Your task to perform on an android device: Search for usb-b on walmart.com, select the first entry, add it to the cart, then select checkout. Image 0: 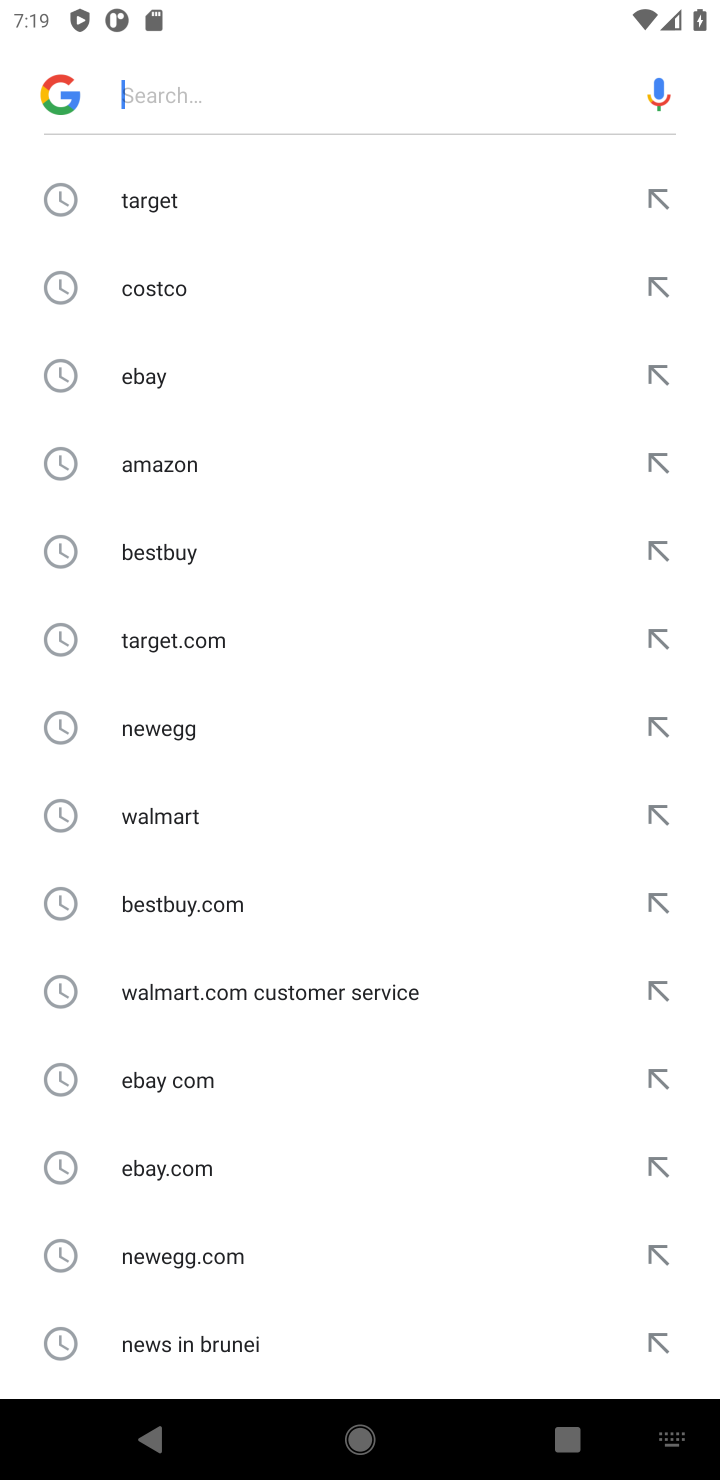
Step 0: press home button
Your task to perform on an android device: Search for usb-b on walmart.com, select the first entry, add it to the cart, then select checkout. Image 1: 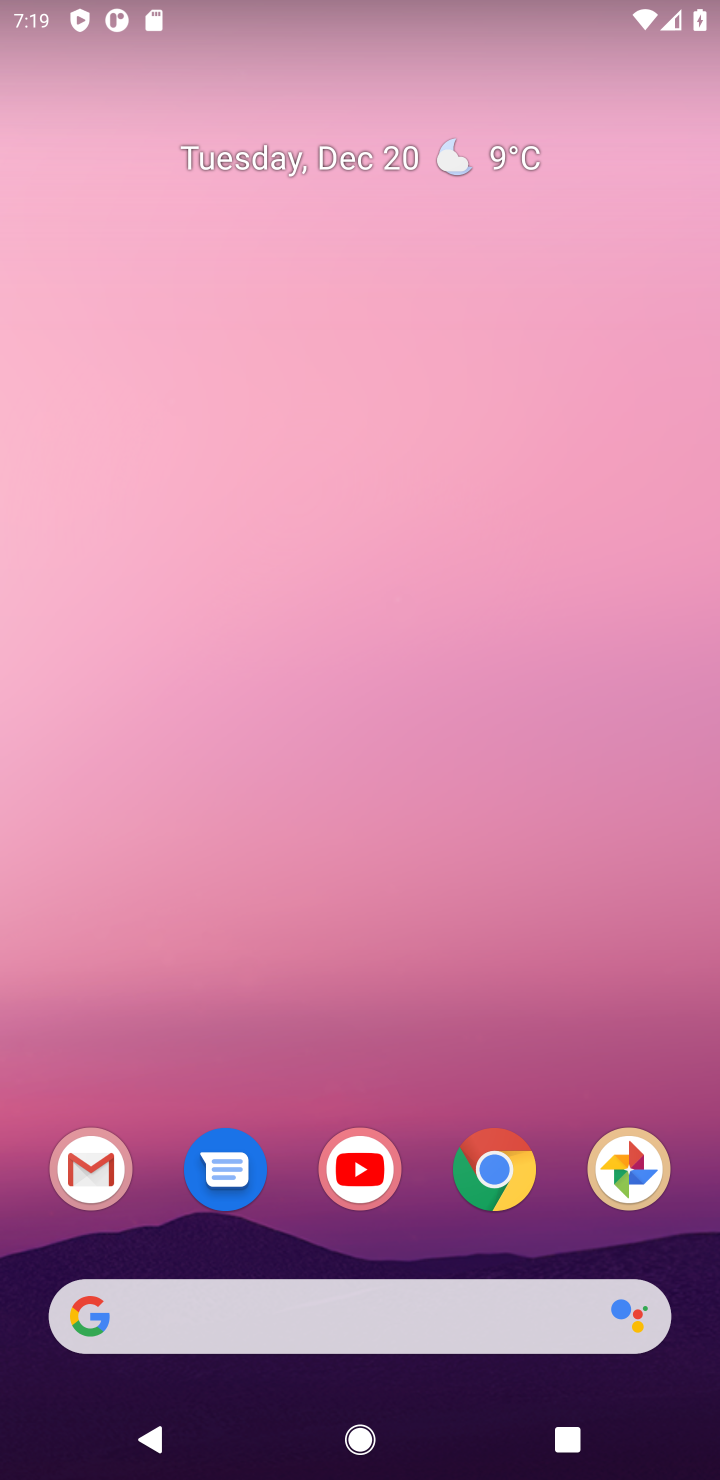
Step 1: click (396, 1293)
Your task to perform on an android device: Search for usb-b on walmart.com, select the first entry, add it to the cart, then select checkout. Image 2: 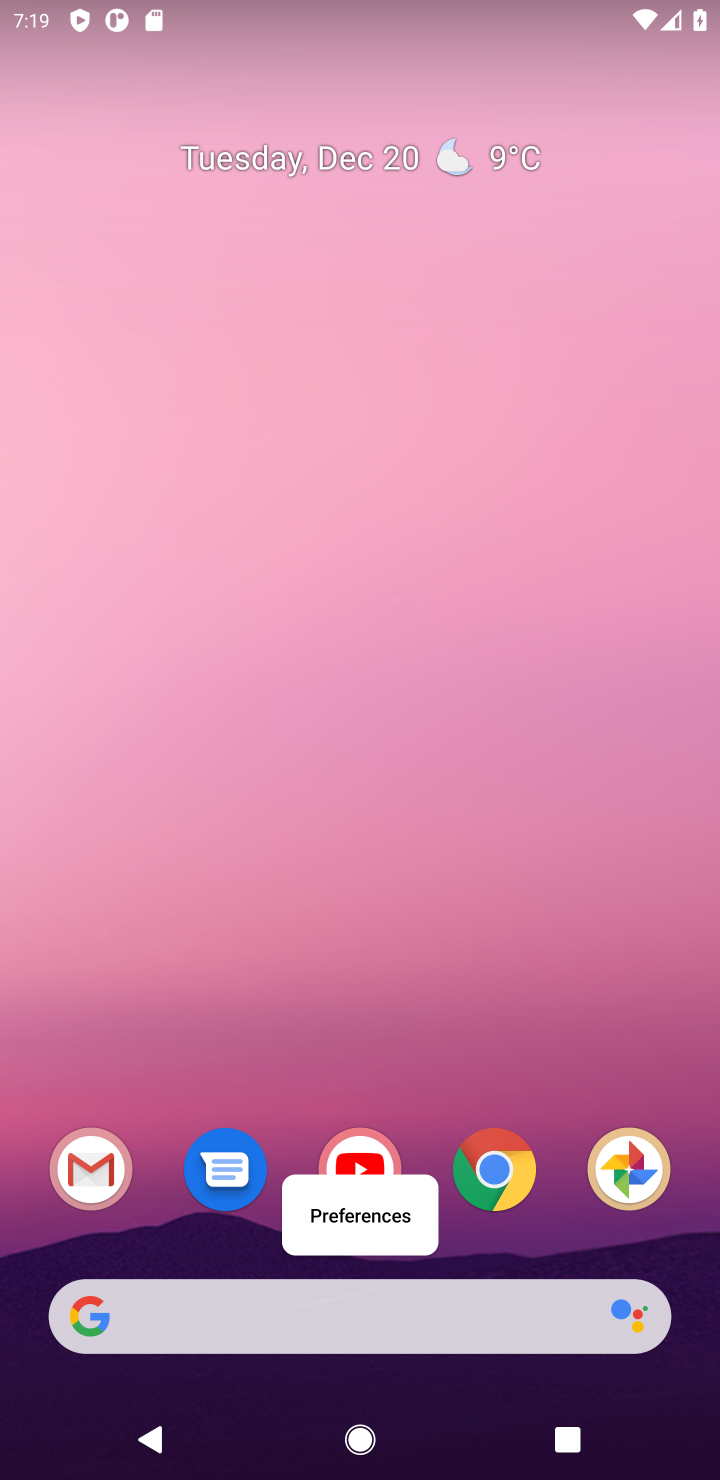
Step 2: click (396, 1293)
Your task to perform on an android device: Search for usb-b on walmart.com, select the first entry, add it to the cart, then select checkout. Image 3: 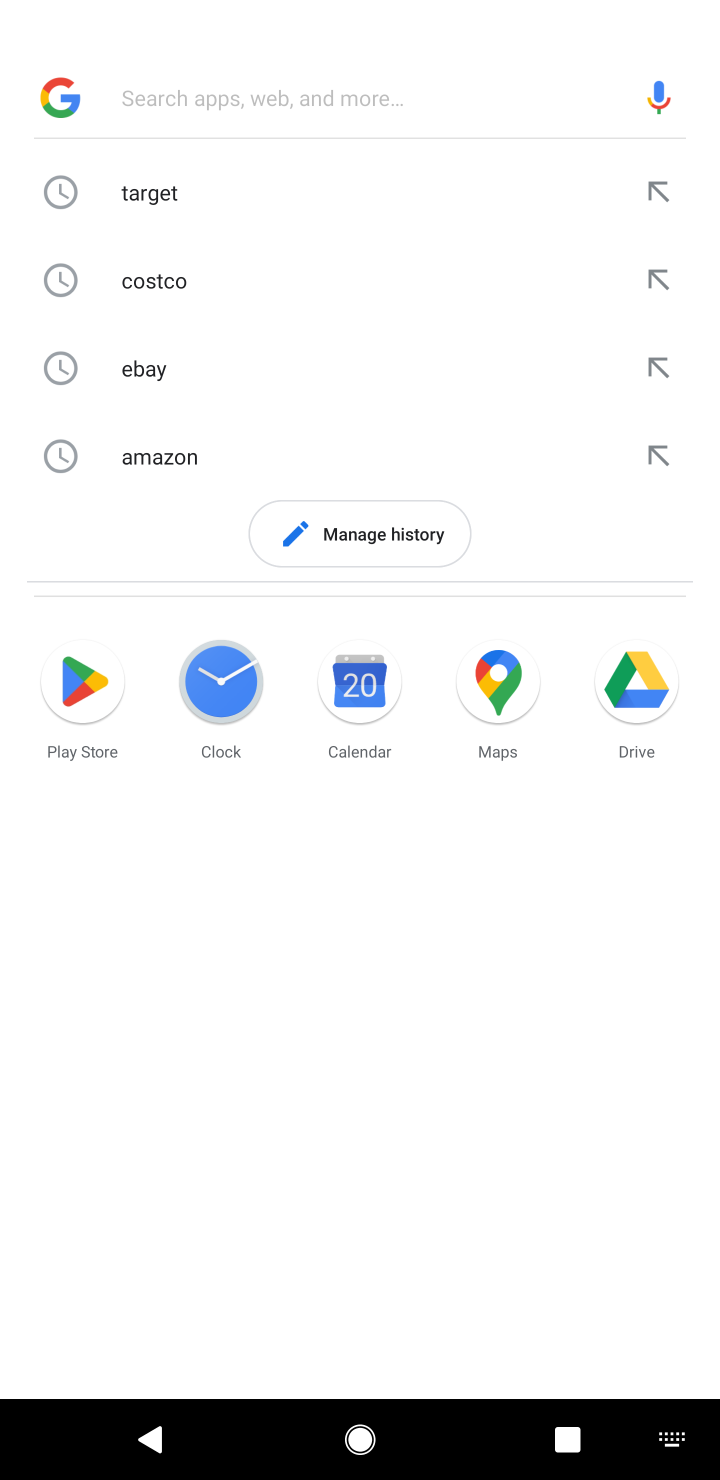
Step 3: click (220, 1300)
Your task to perform on an android device: Search for usb-b on walmart.com, select the first entry, add it to the cart, then select checkout. Image 4: 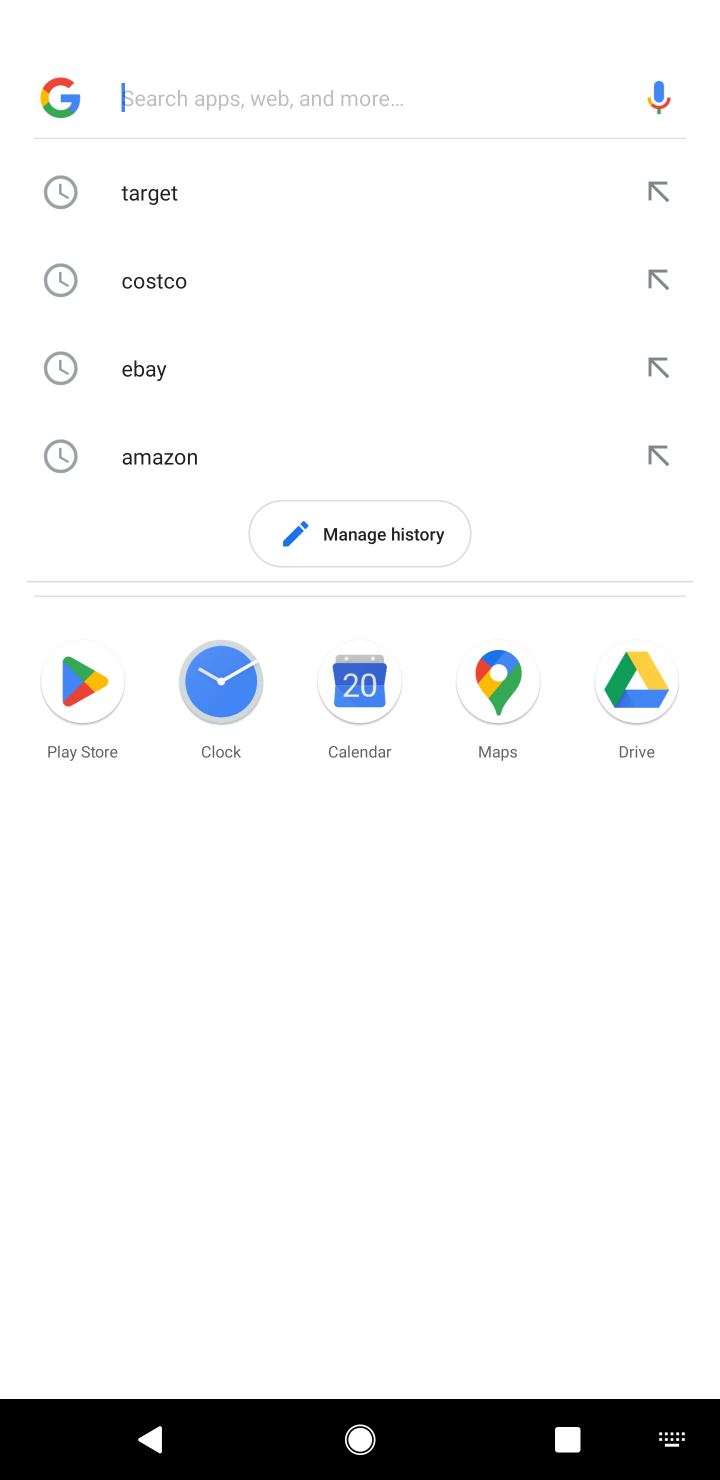
Step 4: type "walmart"
Your task to perform on an android device: Search for usb-b on walmart.com, select the first entry, add it to the cart, then select checkout. Image 5: 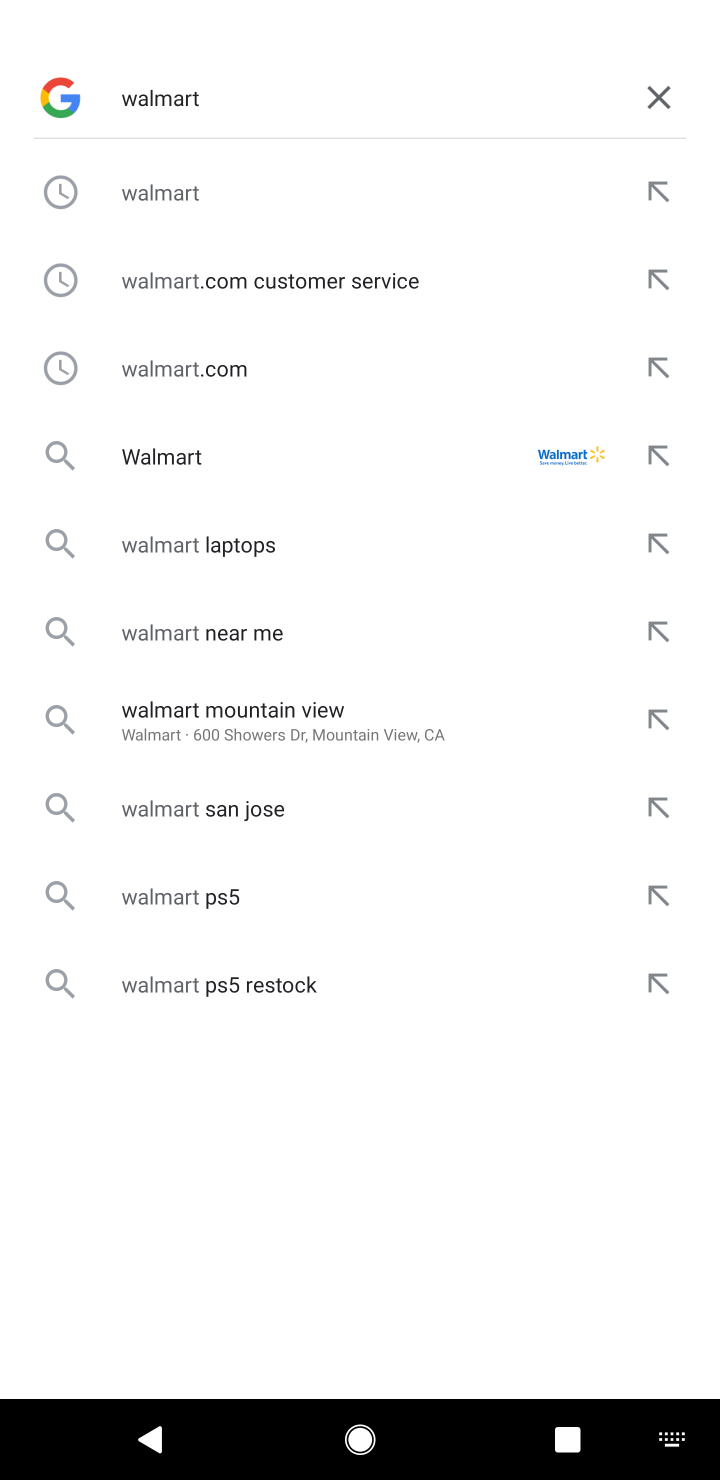
Step 5: click (245, 168)
Your task to perform on an android device: Search for usb-b on walmart.com, select the first entry, add it to the cart, then select checkout. Image 6: 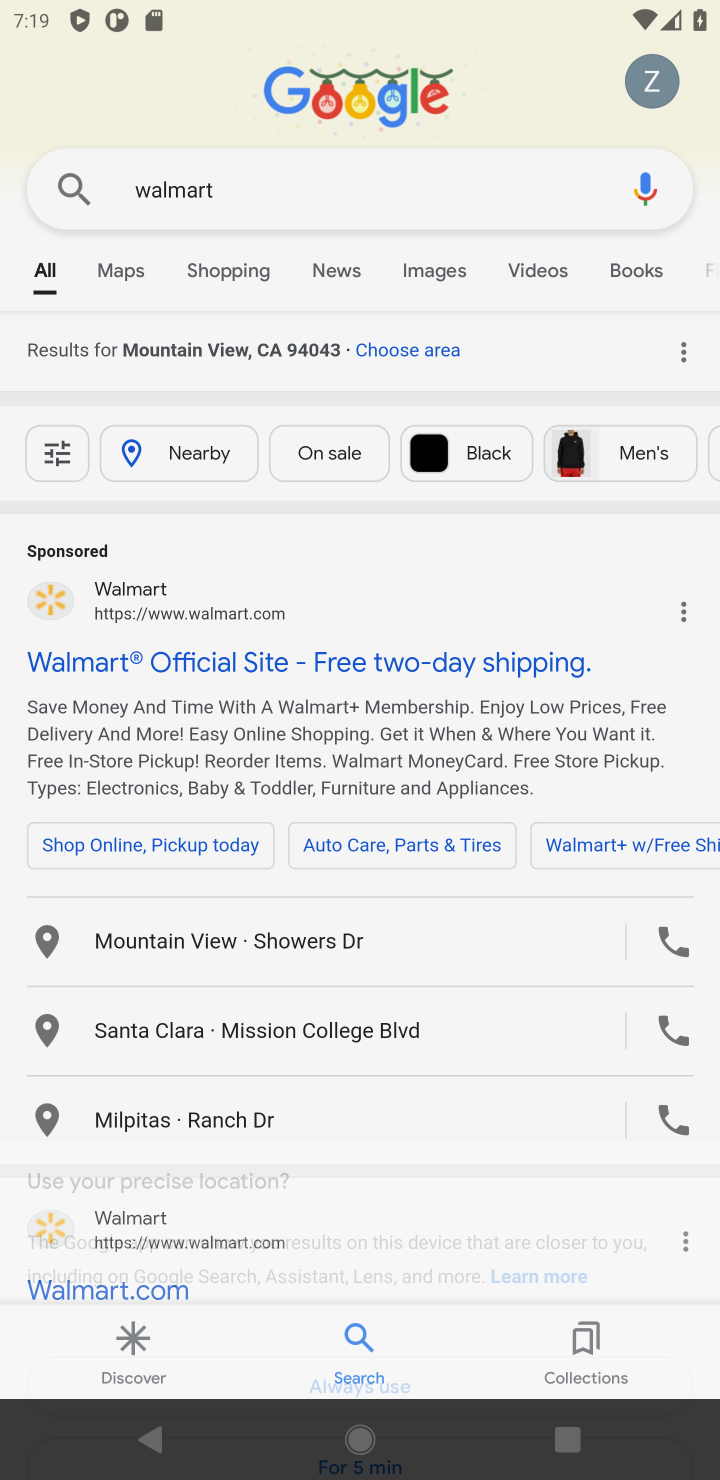
Step 6: click (86, 639)
Your task to perform on an android device: Search for usb-b on walmart.com, select the first entry, add it to the cart, then select checkout. Image 7: 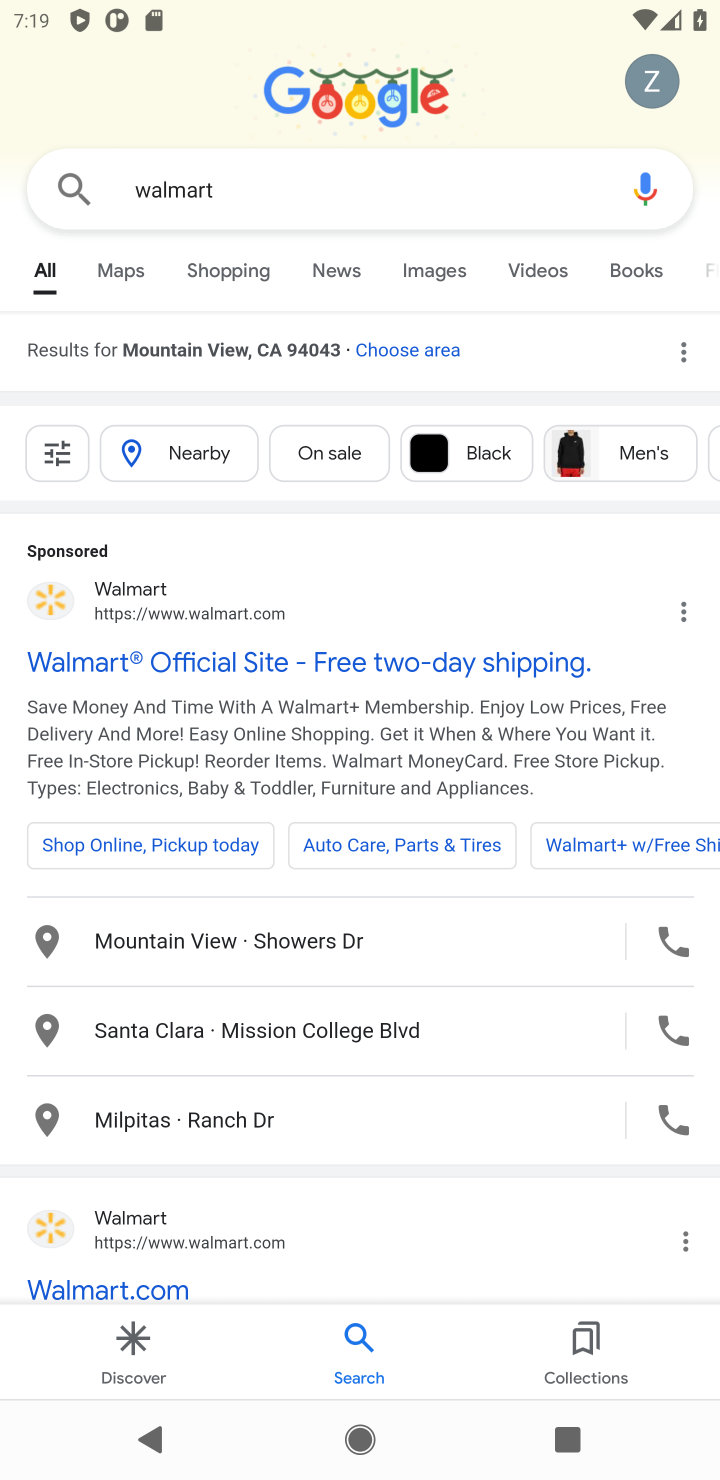
Step 7: click (55, 665)
Your task to perform on an android device: Search for usb-b on walmart.com, select the first entry, add it to the cart, then select checkout. Image 8: 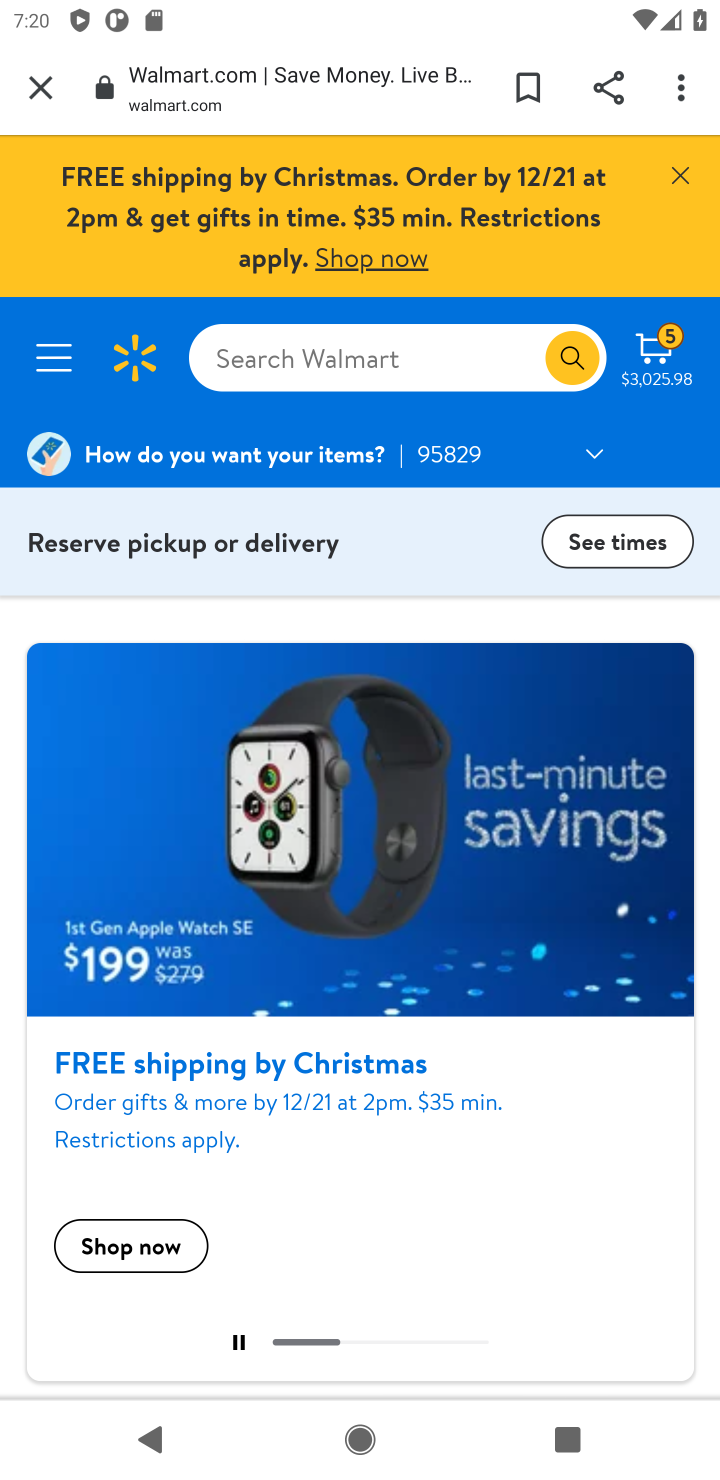
Step 8: click (312, 364)
Your task to perform on an android device: Search for usb-b on walmart.com, select the first entry, add it to the cart, then select checkout. Image 9: 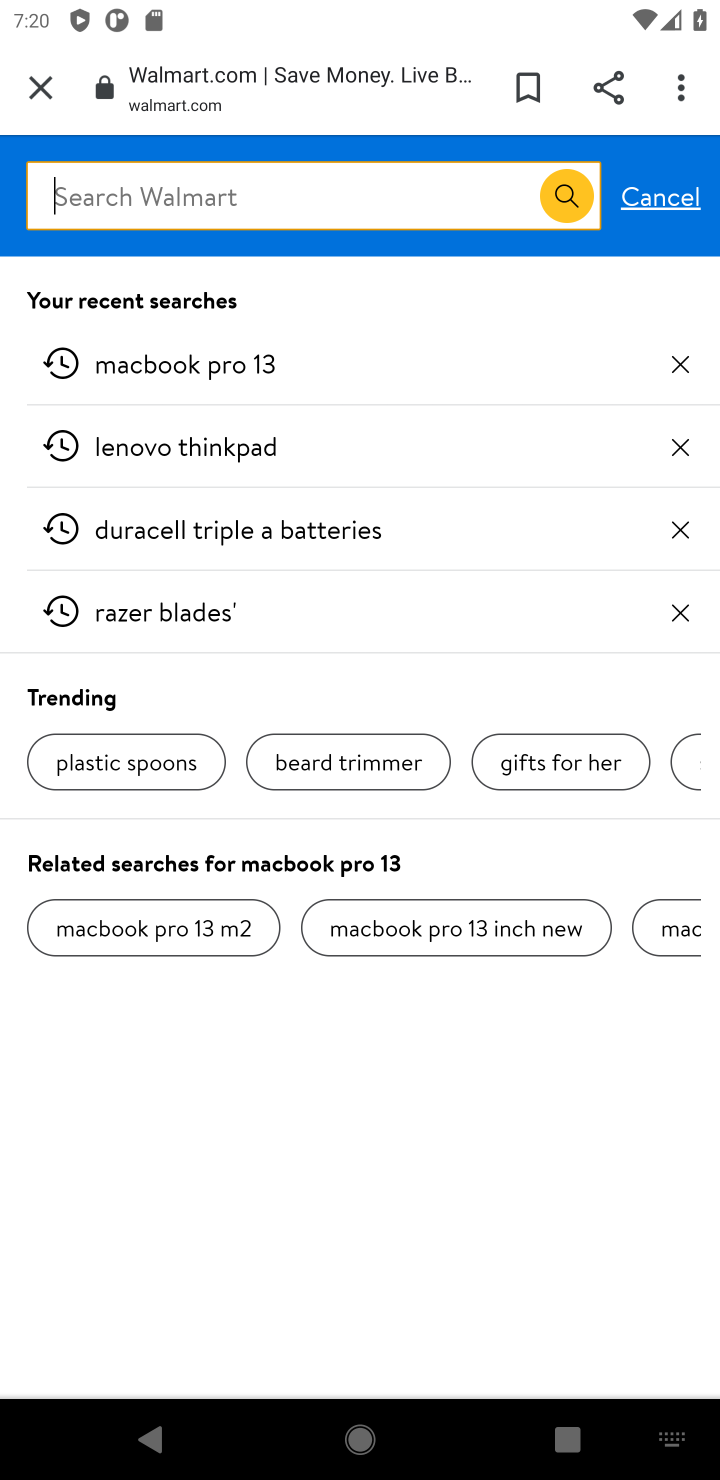
Step 9: type "usb-b"
Your task to perform on an android device: Search for usb-b on walmart.com, select the first entry, add it to the cart, then select checkout. Image 10: 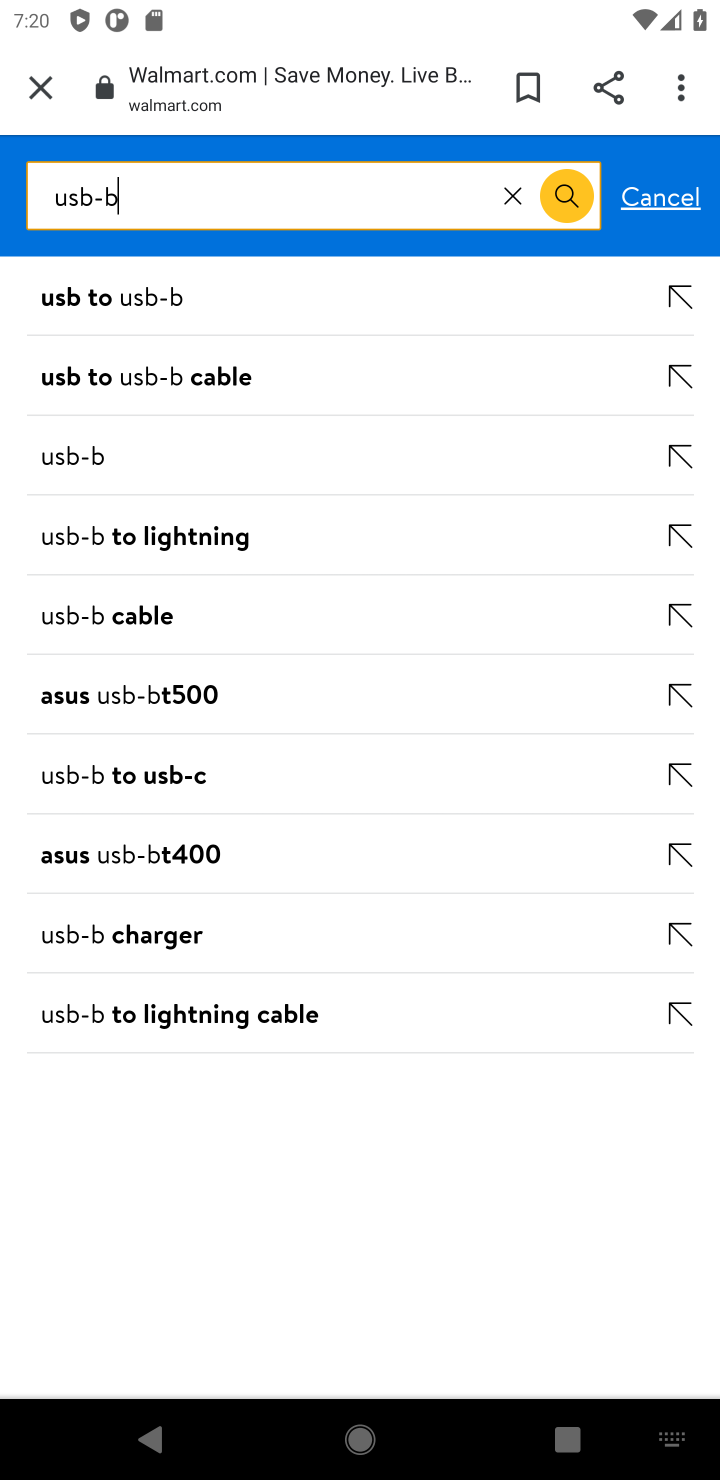
Step 10: click (127, 454)
Your task to perform on an android device: Search for usb-b on walmart.com, select the first entry, add it to the cart, then select checkout. Image 11: 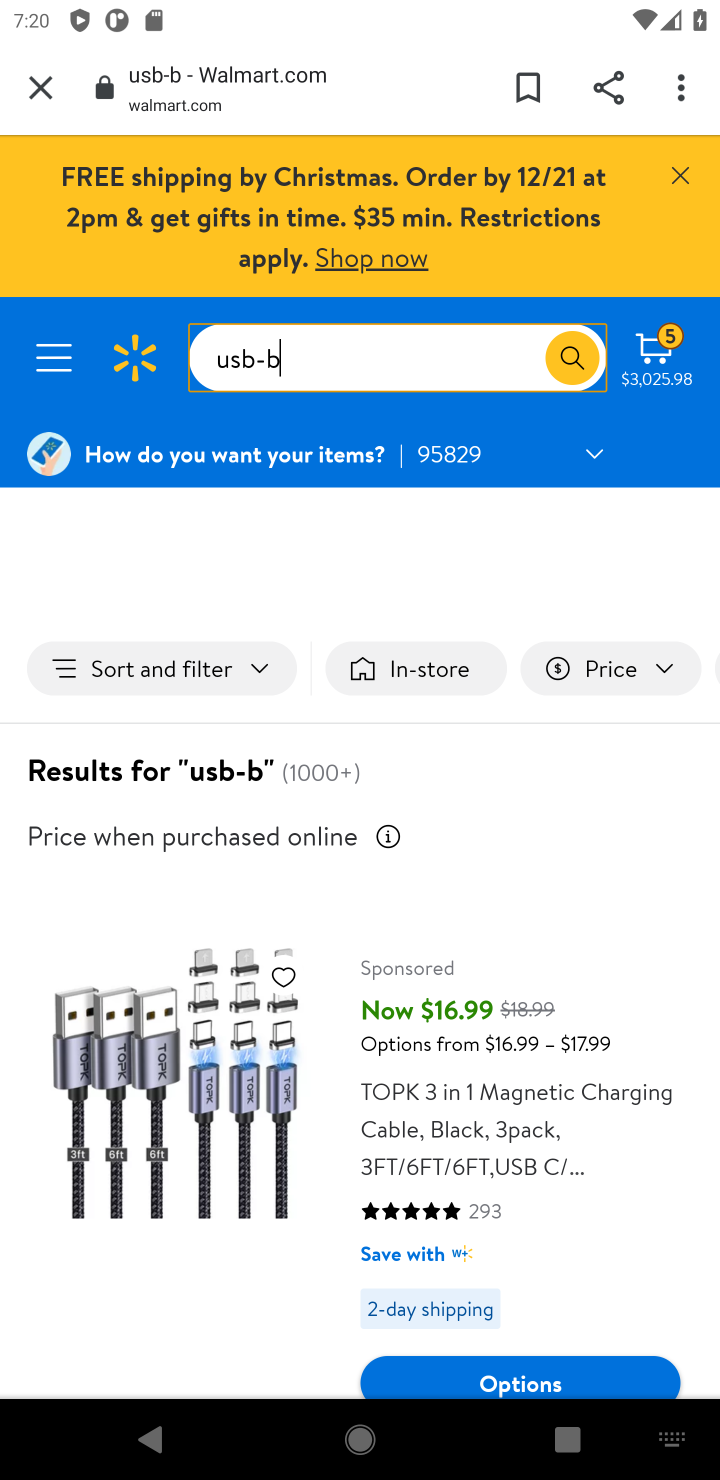
Step 11: click (463, 1366)
Your task to perform on an android device: Search for usb-b on walmart.com, select the first entry, add it to the cart, then select checkout. Image 12: 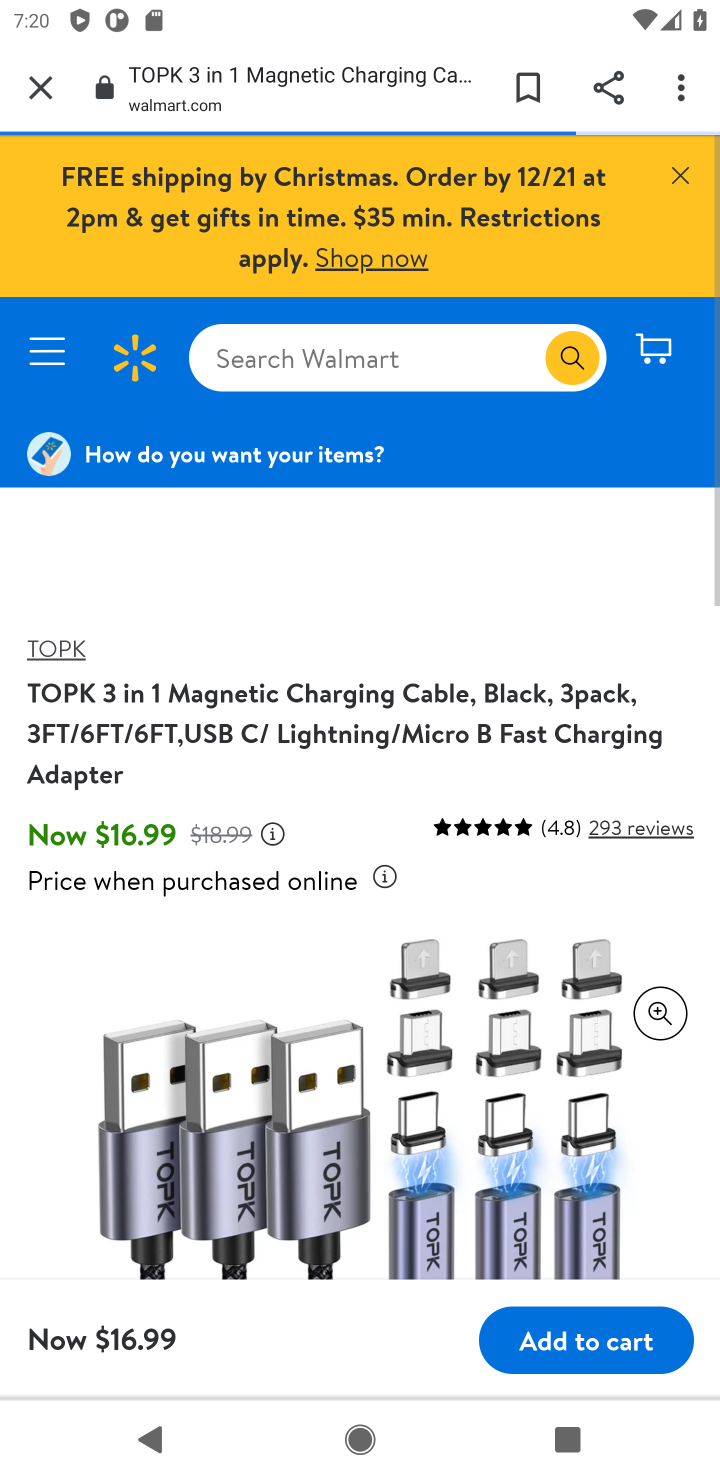
Step 12: click (463, 1366)
Your task to perform on an android device: Search for usb-b on walmart.com, select the first entry, add it to the cart, then select checkout. Image 13: 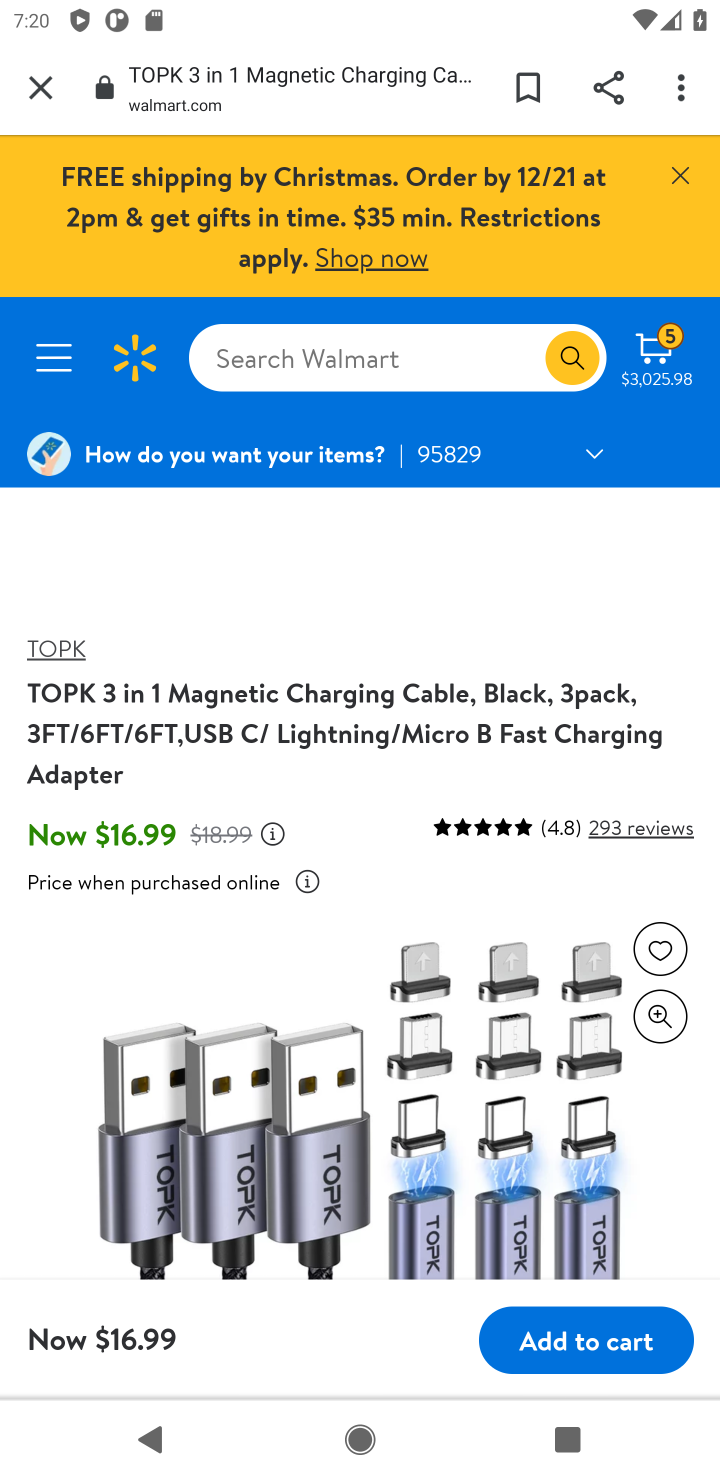
Step 13: click (624, 1320)
Your task to perform on an android device: Search for usb-b on walmart.com, select the first entry, add it to the cart, then select checkout. Image 14: 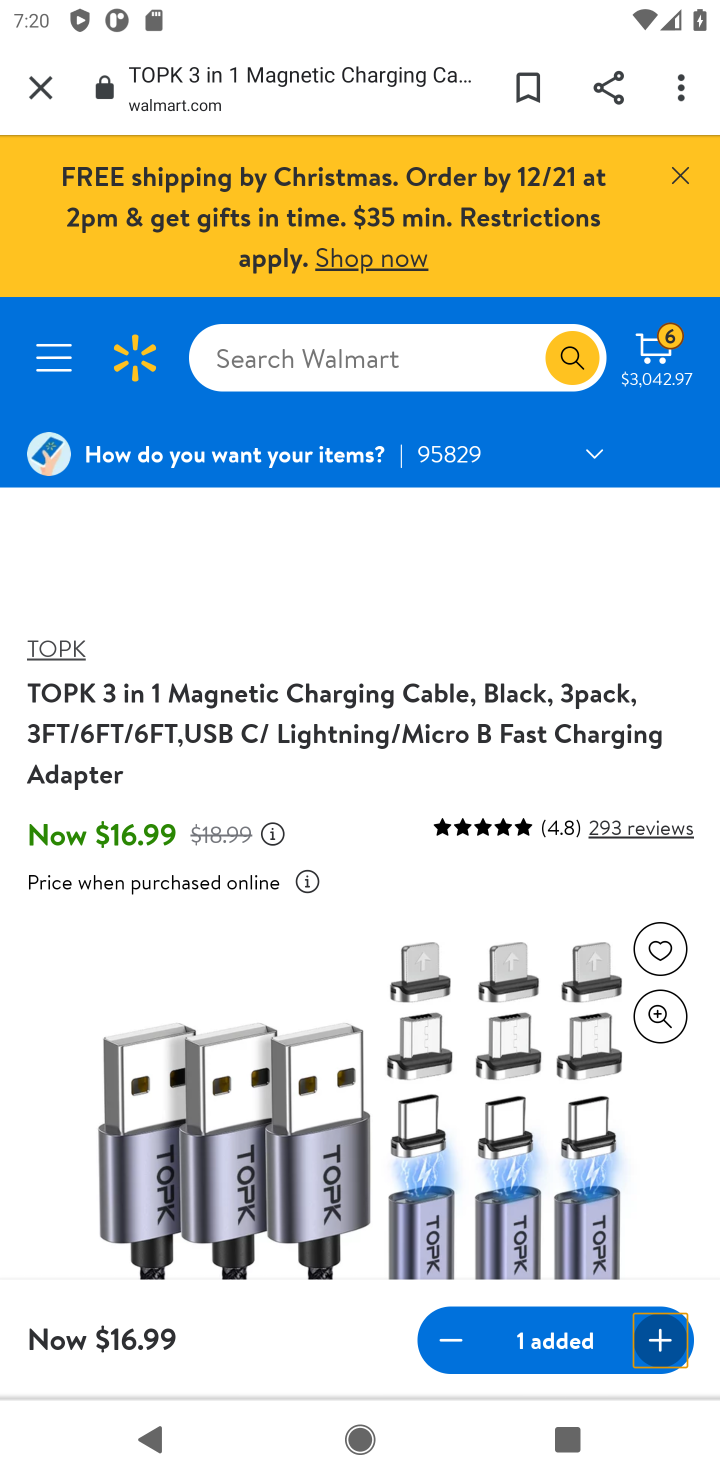
Step 14: task complete